Your task to perform on an android device: turn off smart reply in the gmail app Image 0: 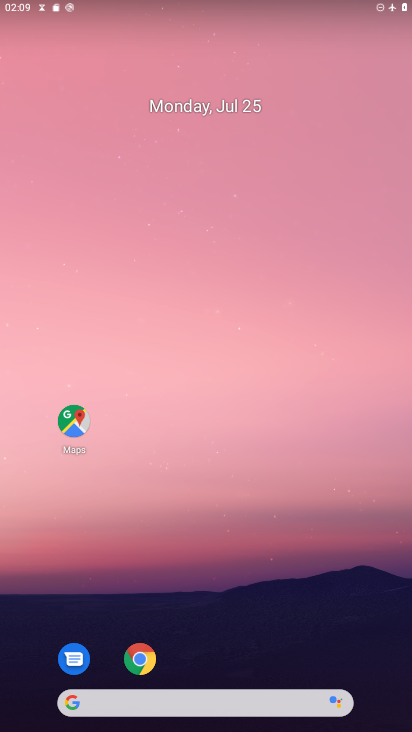
Step 0: drag from (246, 636) to (251, 175)
Your task to perform on an android device: turn off smart reply in the gmail app Image 1: 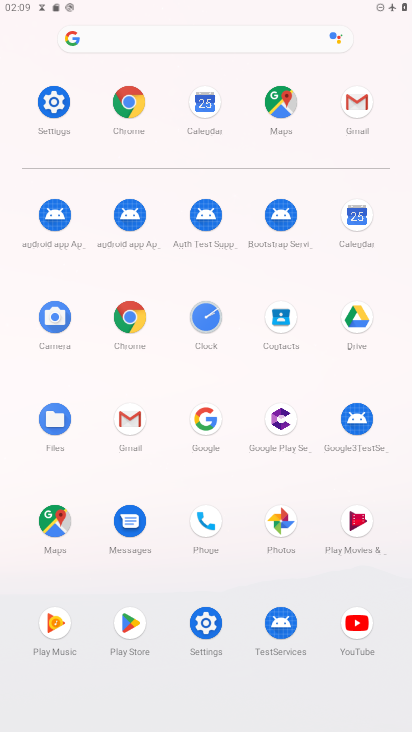
Step 1: click (352, 96)
Your task to perform on an android device: turn off smart reply in the gmail app Image 2: 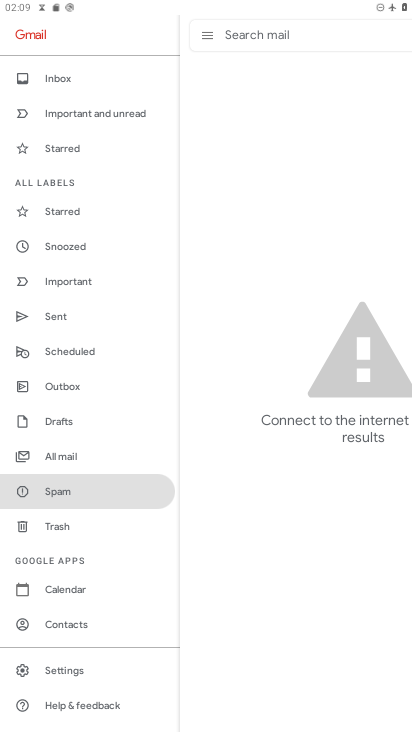
Step 2: click (82, 669)
Your task to perform on an android device: turn off smart reply in the gmail app Image 3: 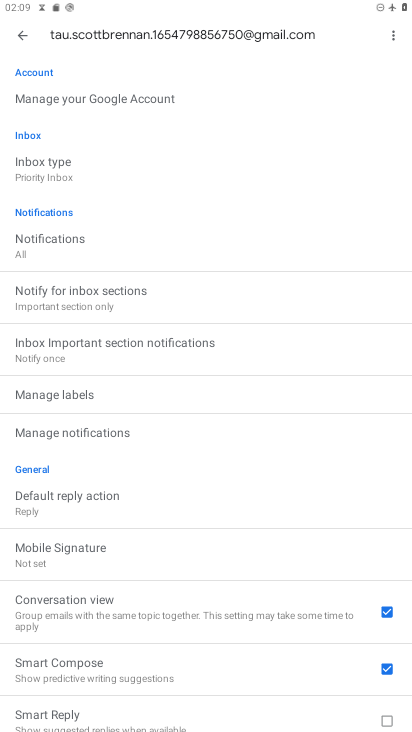
Step 3: task complete